Your task to perform on an android device: Search for pizza restaurants on Maps Image 0: 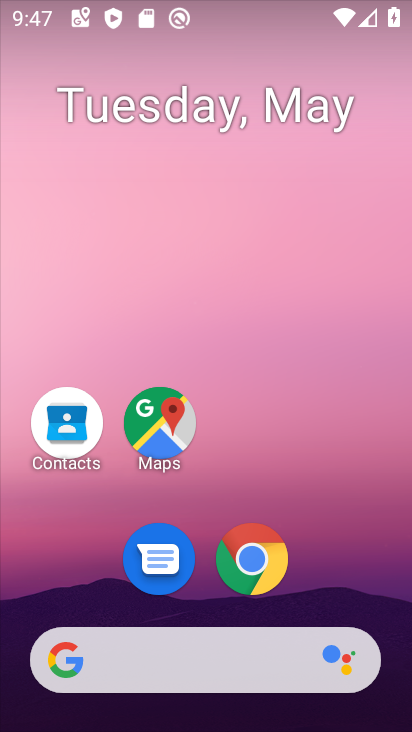
Step 0: click (164, 434)
Your task to perform on an android device: Search for pizza restaurants on Maps Image 1: 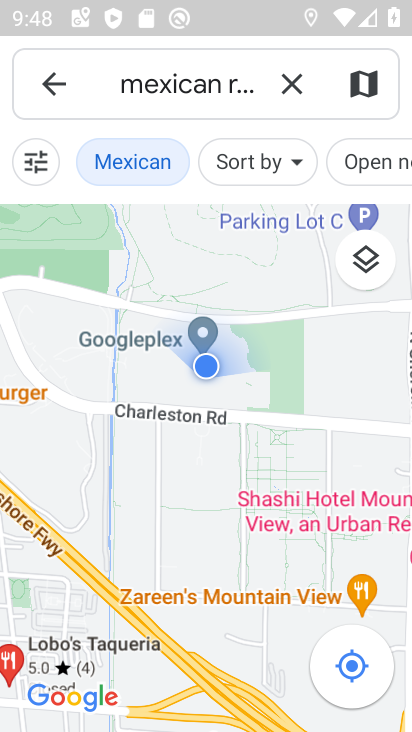
Step 1: click (283, 79)
Your task to perform on an android device: Search for pizza restaurants on Maps Image 2: 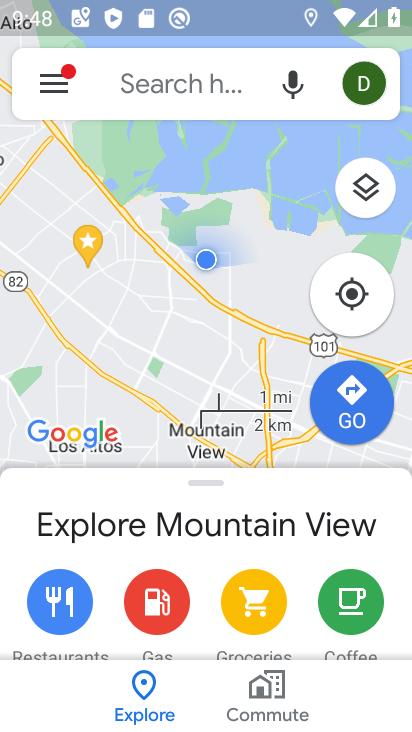
Step 2: click (239, 79)
Your task to perform on an android device: Search for pizza restaurants on Maps Image 3: 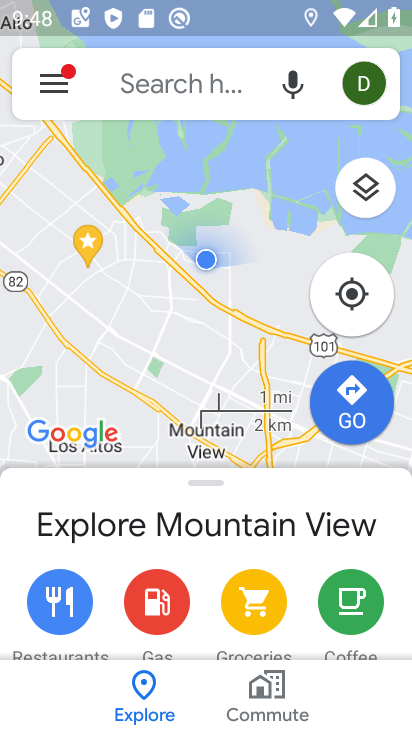
Step 3: click (239, 79)
Your task to perform on an android device: Search for pizza restaurants on Maps Image 4: 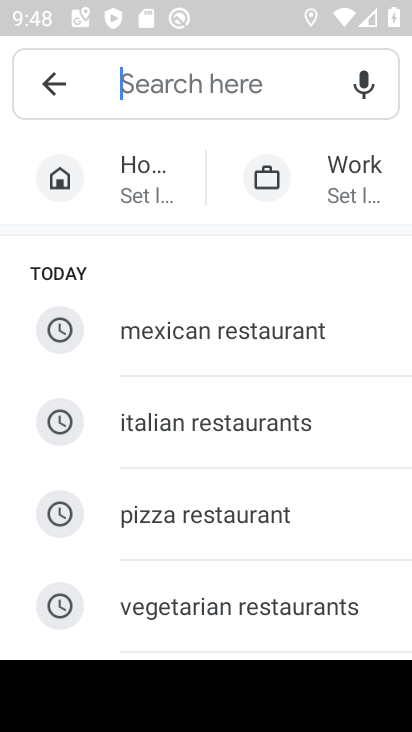
Step 4: click (193, 524)
Your task to perform on an android device: Search for pizza restaurants on Maps Image 5: 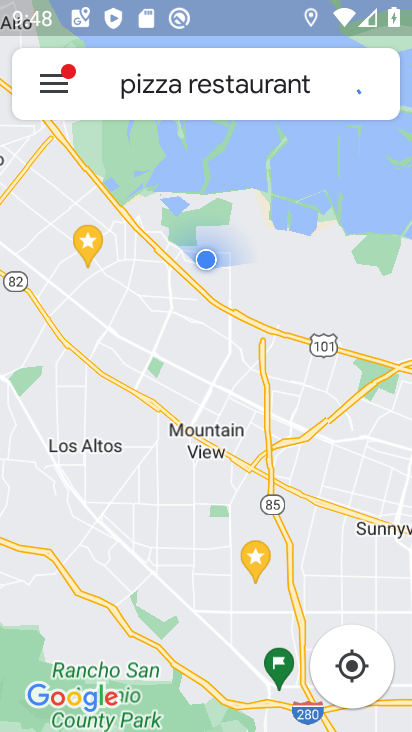
Step 5: task complete